Your task to perform on an android device: Open network settings Image 0: 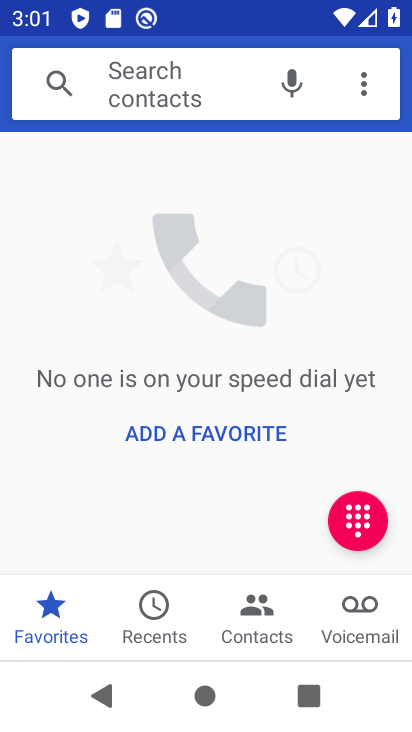
Step 0: press home button
Your task to perform on an android device: Open network settings Image 1: 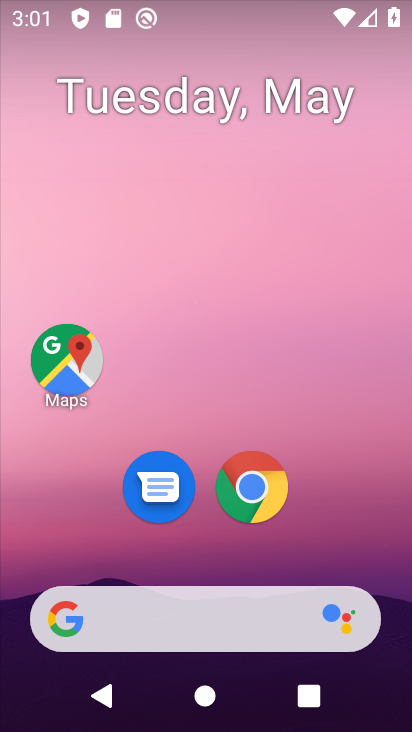
Step 1: drag from (184, 580) to (115, 43)
Your task to perform on an android device: Open network settings Image 2: 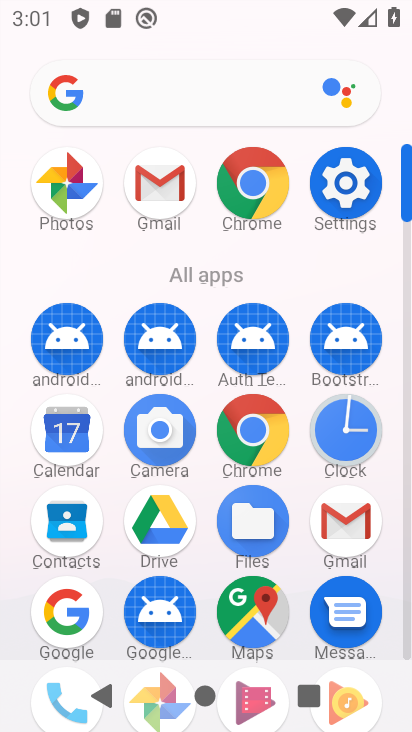
Step 2: click (331, 189)
Your task to perform on an android device: Open network settings Image 3: 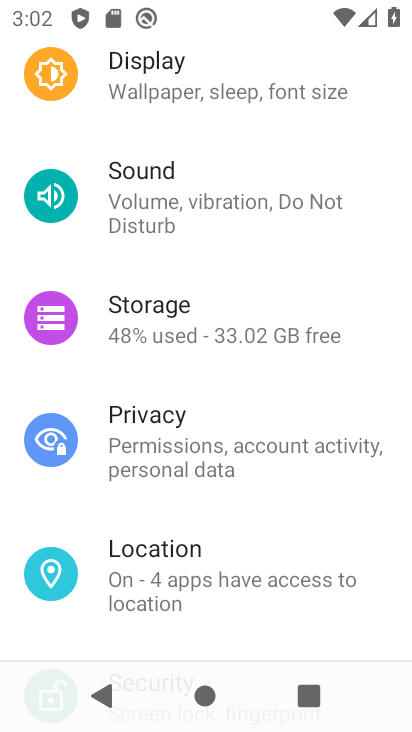
Step 3: drag from (161, 167) to (114, 553)
Your task to perform on an android device: Open network settings Image 4: 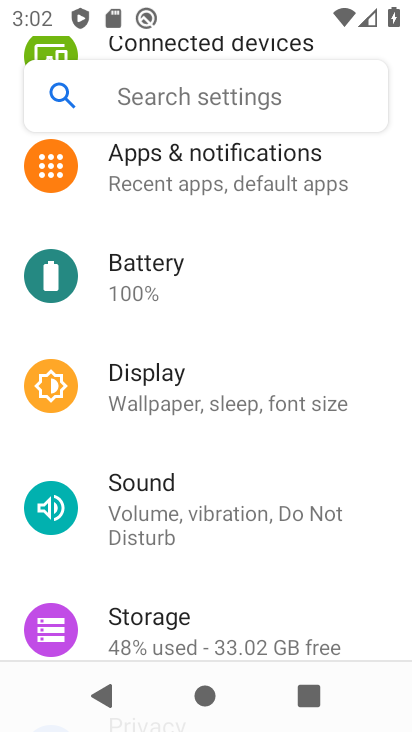
Step 4: drag from (186, 135) to (176, 349)
Your task to perform on an android device: Open network settings Image 5: 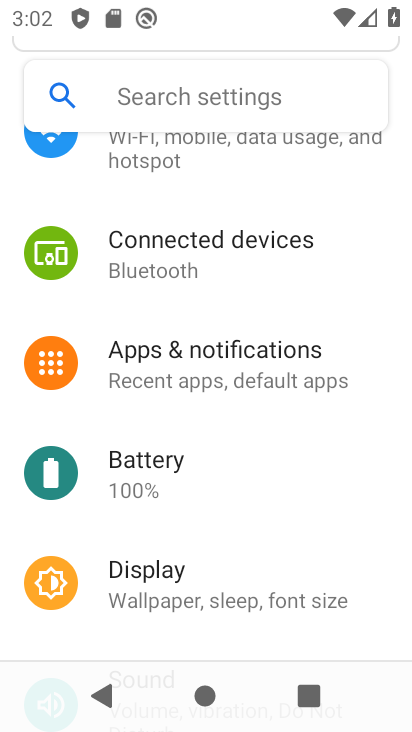
Step 5: drag from (205, 233) to (187, 477)
Your task to perform on an android device: Open network settings Image 6: 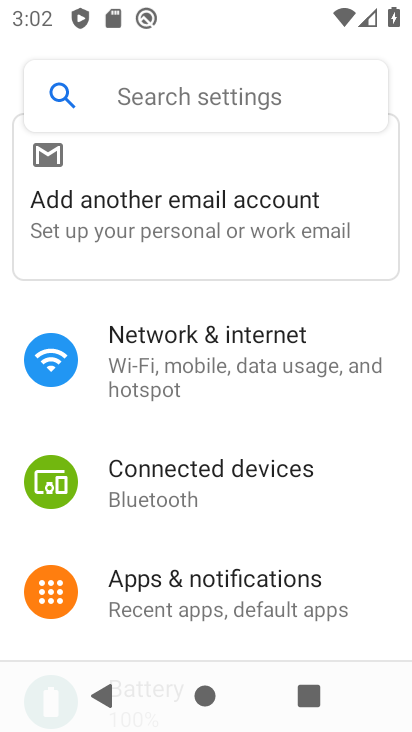
Step 6: click (256, 363)
Your task to perform on an android device: Open network settings Image 7: 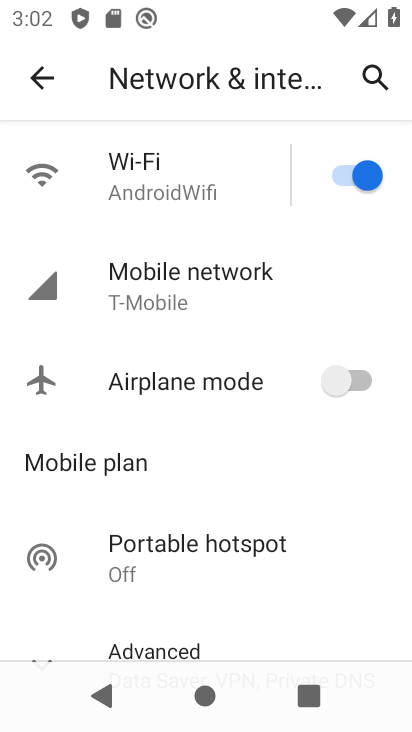
Step 7: click (96, 251)
Your task to perform on an android device: Open network settings Image 8: 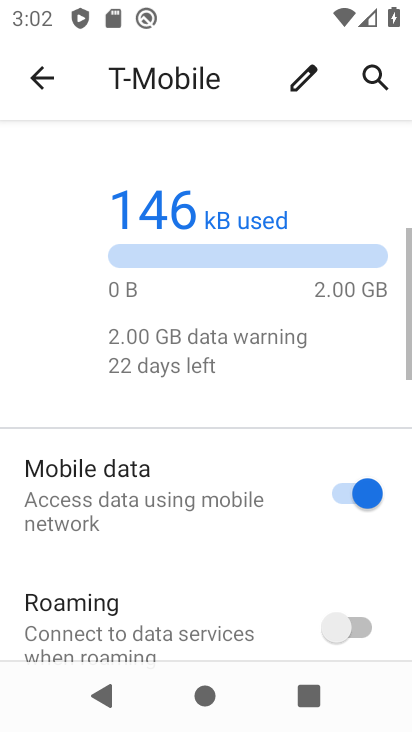
Step 8: task complete